Your task to perform on an android device: Open Google Maps Image 0: 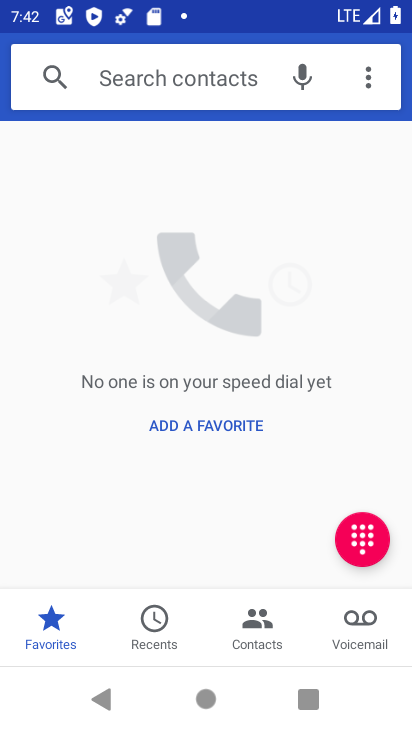
Step 0: press home button
Your task to perform on an android device: Open Google Maps Image 1: 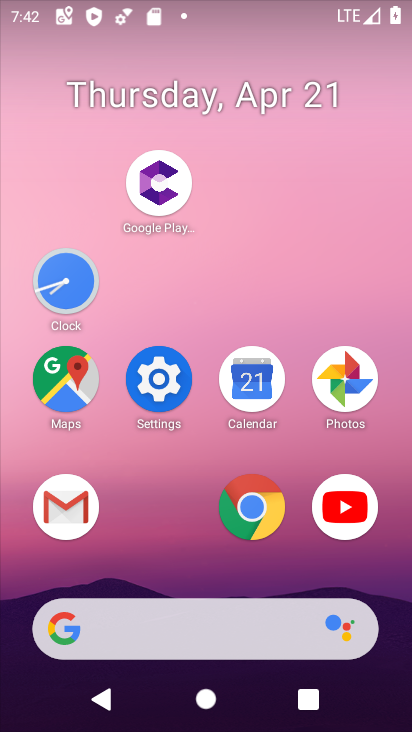
Step 1: click (67, 385)
Your task to perform on an android device: Open Google Maps Image 2: 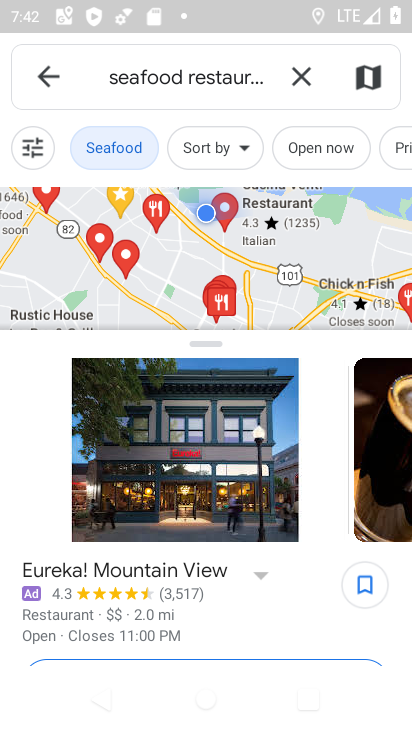
Step 2: task complete